Your task to perform on an android device: Open settings on Google Maps Image 0: 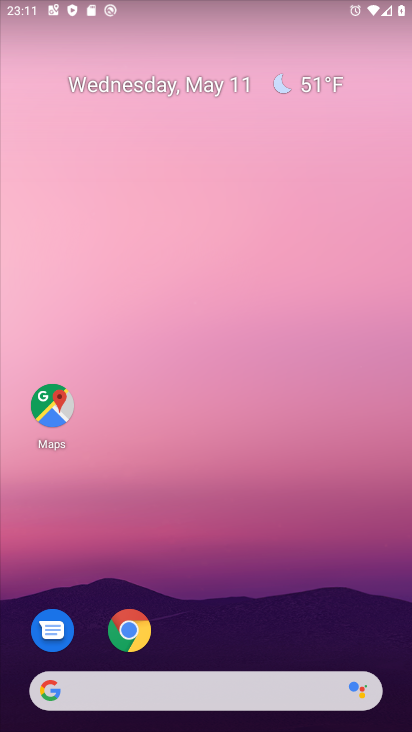
Step 0: drag from (213, 729) to (211, 176)
Your task to perform on an android device: Open settings on Google Maps Image 1: 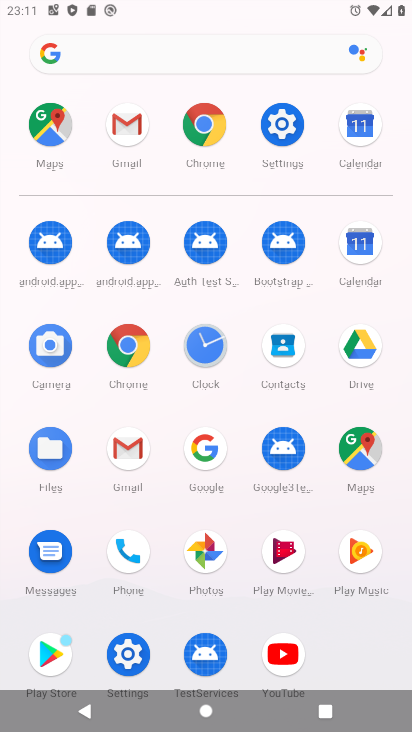
Step 1: click (357, 451)
Your task to perform on an android device: Open settings on Google Maps Image 2: 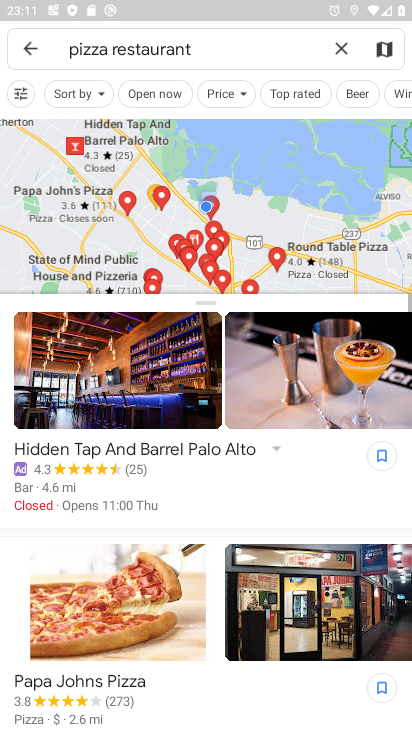
Step 2: click (26, 41)
Your task to perform on an android device: Open settings on Google Maps Image 3: 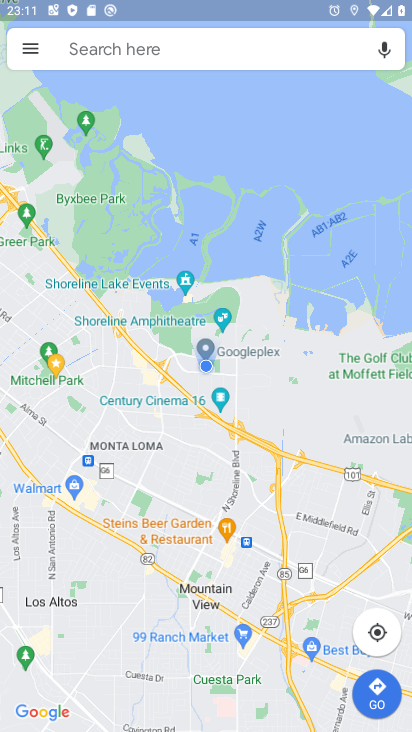
Step 3: click (31, 53)
Your task to perform on an android device: Open settings on Google Maps Image 4: 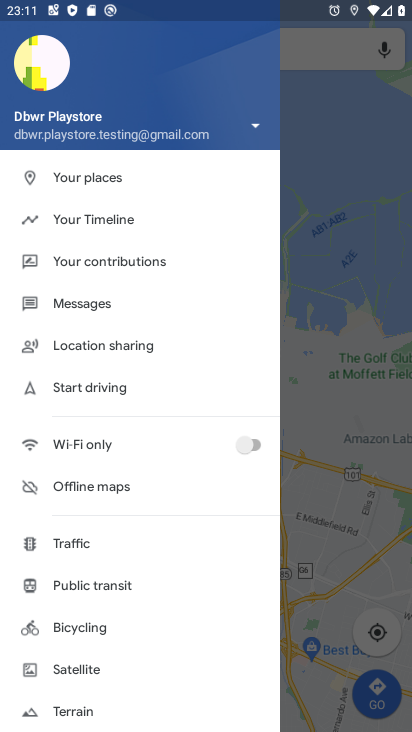
Step 4: drag from (95, 693) to (95, 287)
Your task to perform on an android device: Open settings on Google Maps Image 5: 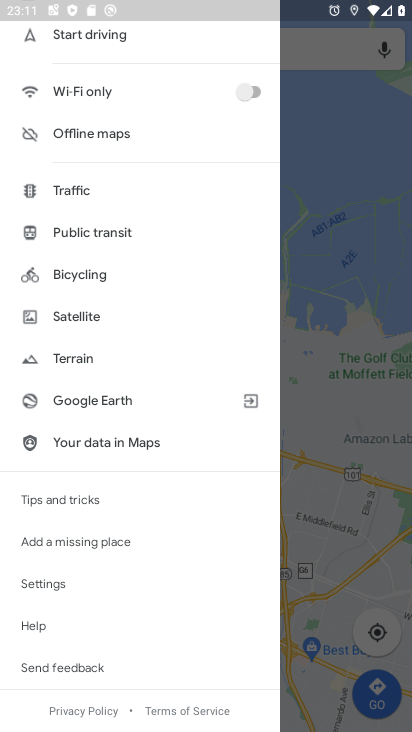
Step 5: click (50, 580)
Your task to perform on an android device: Open settings on Google Maps Image 6: 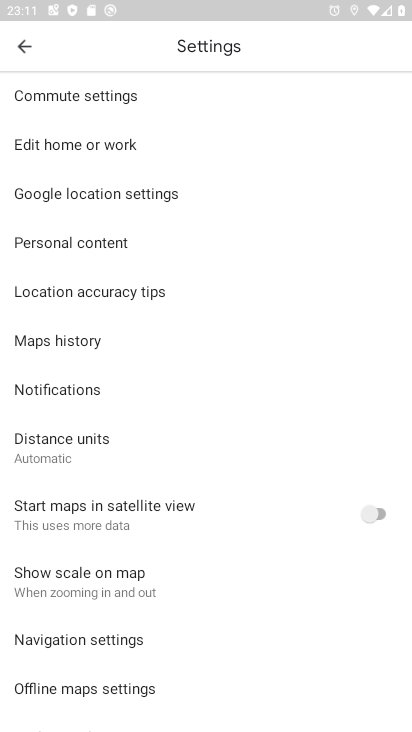
Step 6: task complete